Your task to perform on an android device: Open Chrome and go to settings Image 0: 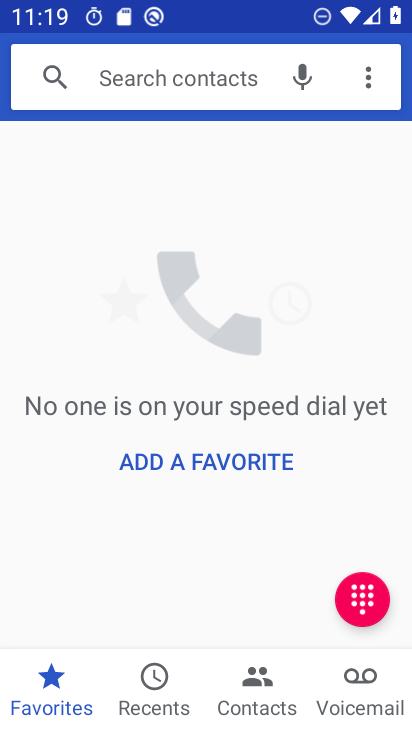
Step 0: press back button
Your task to perform on an android device: Open Chrome and go to settings Image 1: 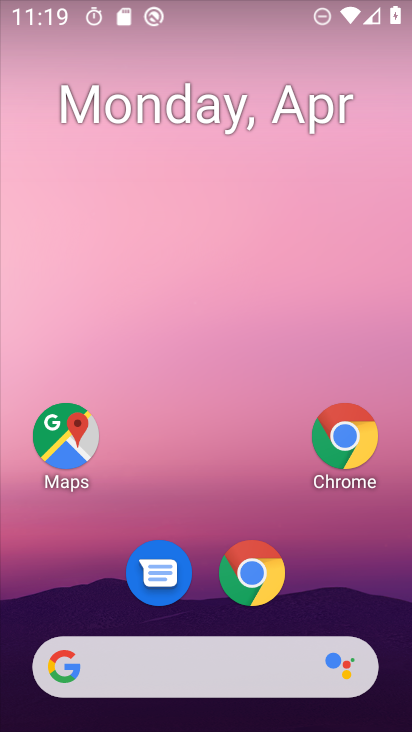
Step 1: click (349, 440)
Your task to perform on an android device: Open Chrome and go to settings Image 2: 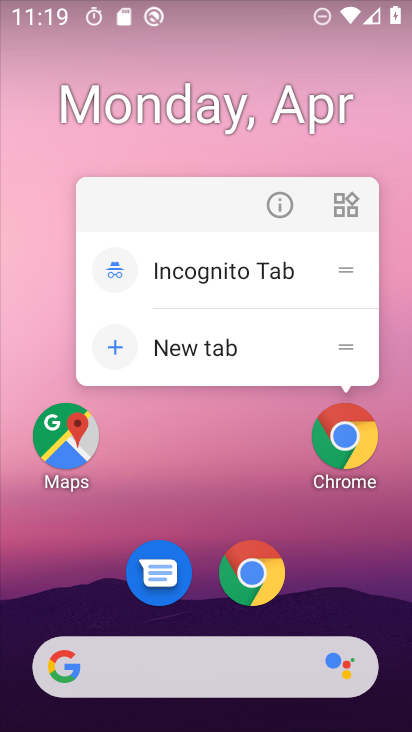
Step 2: click (349, 440)
Your task to perform on an android device: Open Chrome and go to settings Image 3: 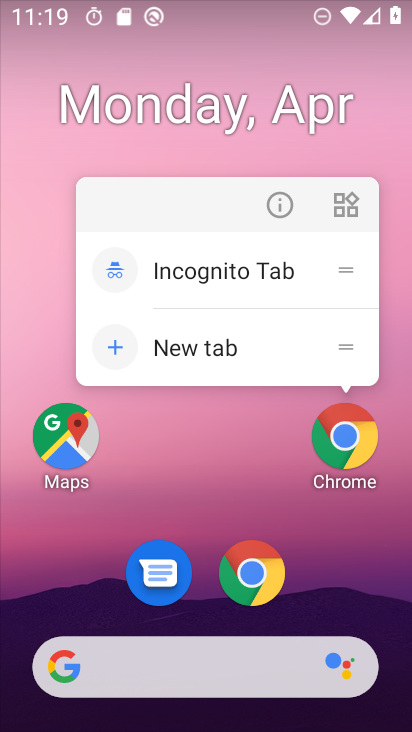
Step 3: click (349, 440)
Your task to perform on an android device: Open Chrome and go to settings Image 4: 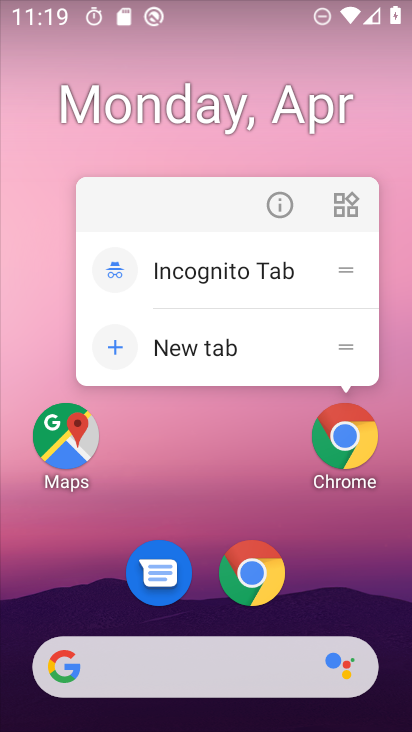
Step 4: click (349, 439)
Your task to perform on an android device: Open Chrome and go to settings Image 5: 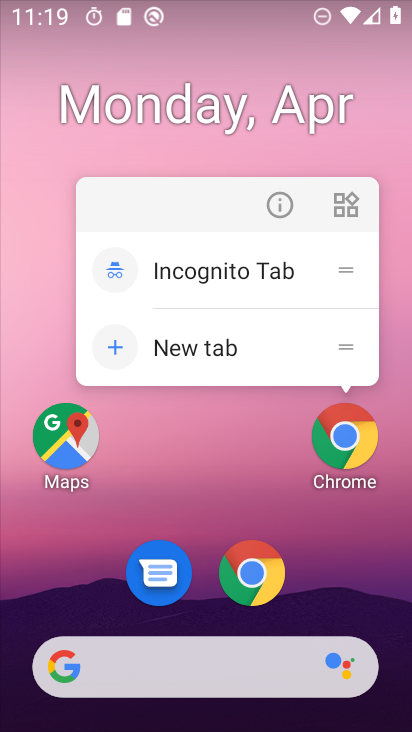
Step 5: click (349, 439)
Your task to perform on an android device: Open Chrome and go to settings Image 6: 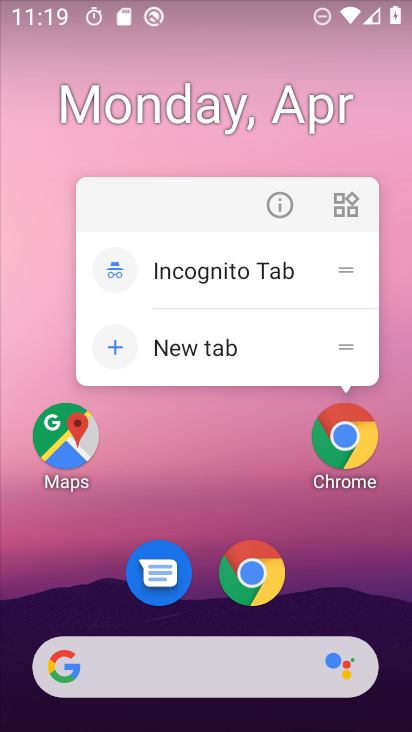
Step 6: click (349, 439)
Your task to perform on an android device: Open Chrome and go to settings Image 7: 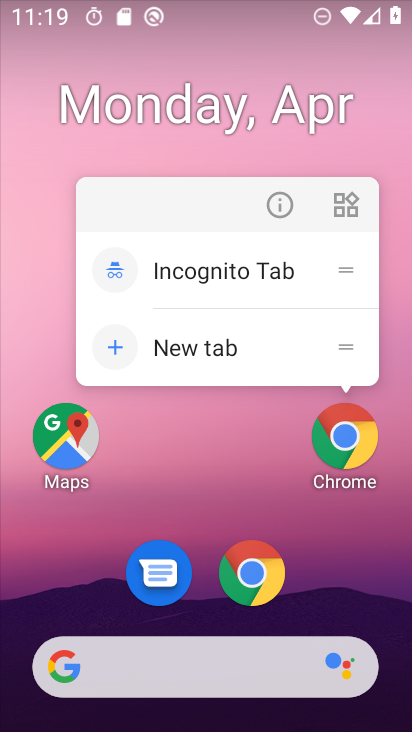
Step 7: click (349, 439)
Your task to perform on an android device: Open Chrome and go to settings Image 8: 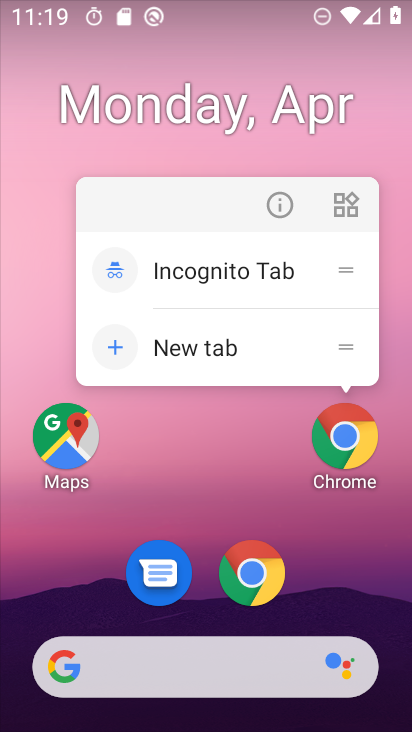
Step 8: click (350, 437)
Your task to perform on an android device: Open Chrome and go to settings Image 9: 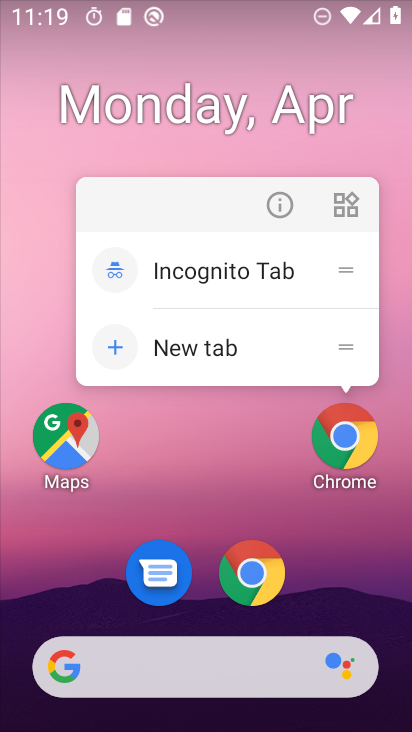
Step 9: click (350, 438)
Your task to perform on an android device: Open Chrome and go to settings Image 10: 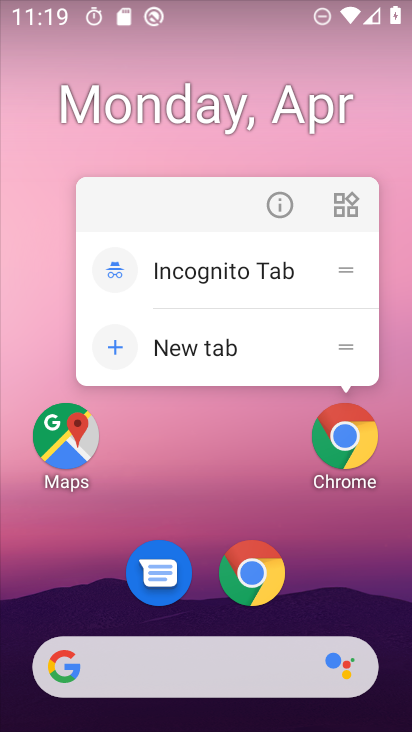
Step 10: click (350, 438)
Your task to perform on an android device: Open Chrome and go to settings Image 11: 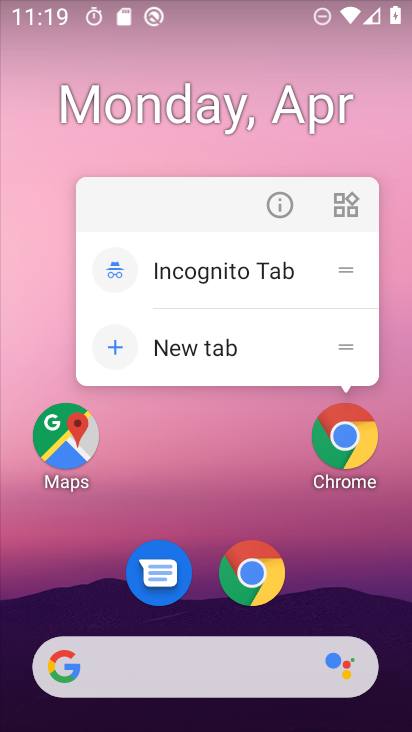
Step 11: click (350, 437)
Your task to perform on an android device: Open Chrome and go to settings Image 12: 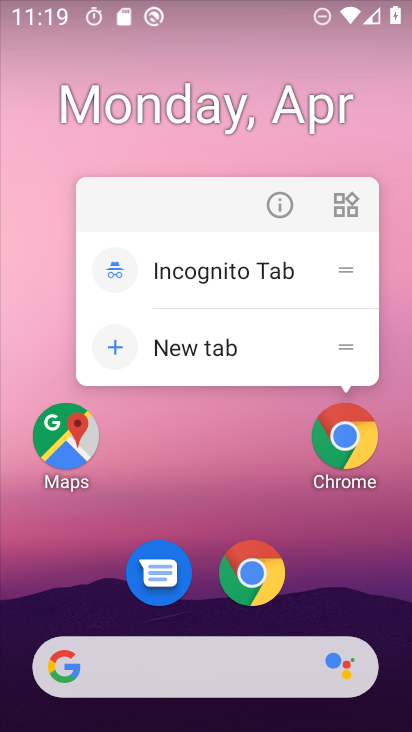
Step 12: click (350, 438)
Your task to perform on an android device: Open Chrome and go to settings Image 13: 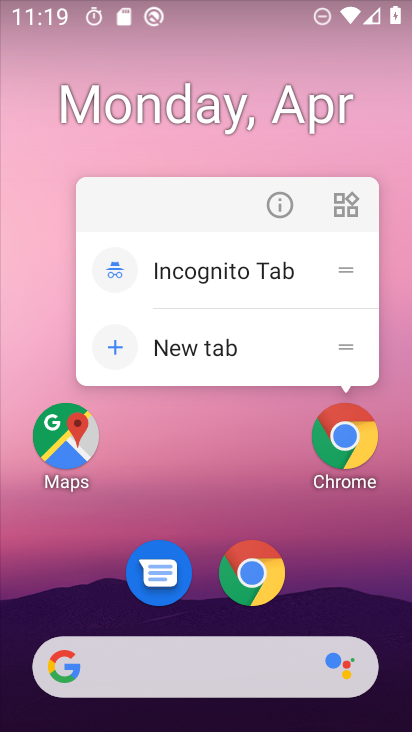
Step 13: click (350, 438)
Your task to perform on an android device: Open Chrome and go to settings Image 14: 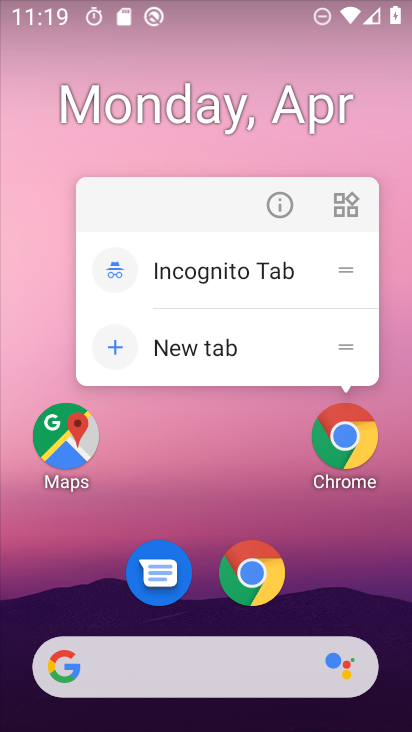
Step 14: click (350, 438)
Your task to perform on an android device: Open Chrome and go to settings Image 15: 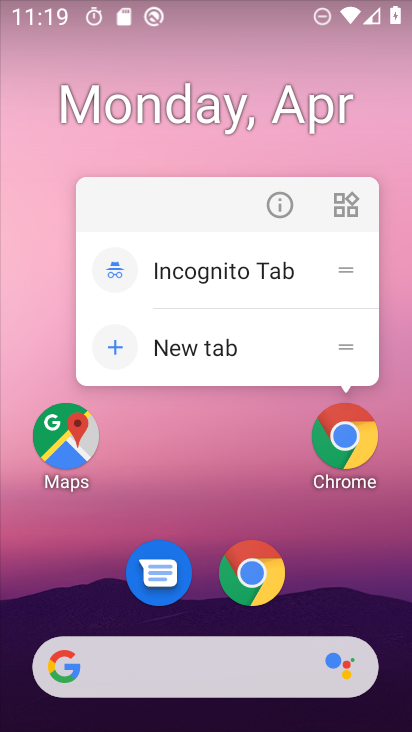
Step 15: click (350, 437)
Your task to perform on an android device: Open Chrome and go to settings Image 16: 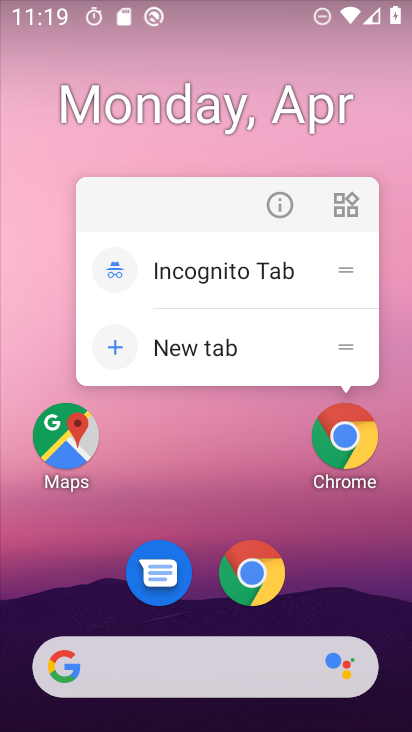
Step 16: click (350, 437)
Your task to perform on an android device: Open Chrome and go to settings Image 17: 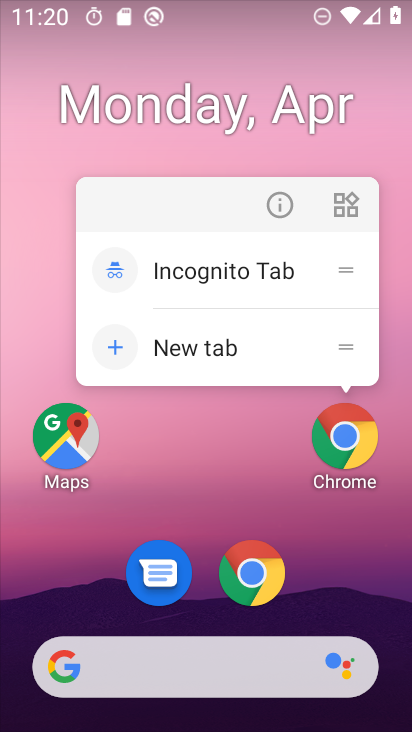
Step 17: click (350, 436)
Your task to perform on an android device: Open Chrome and go to settings Image 18: 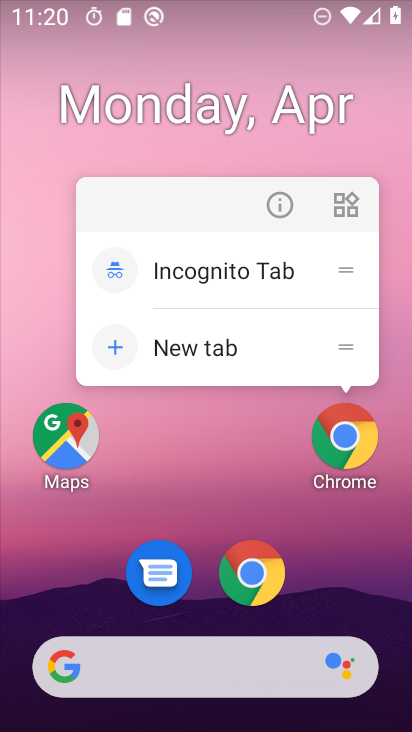
Step 18: click (350, 436)
Your task to perform on an android device: Open Chrome and go to settings Image 19: 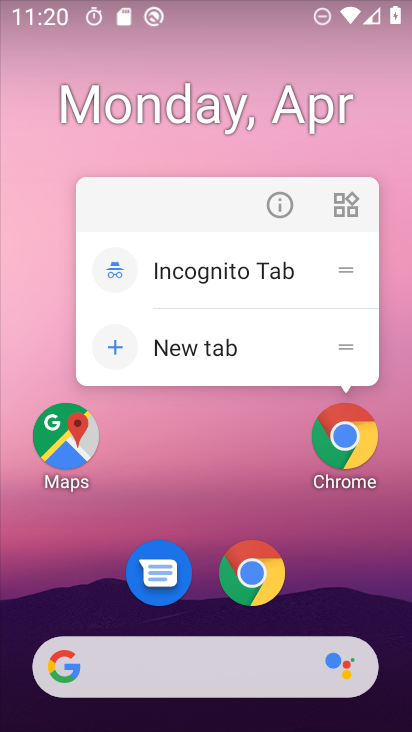
Step 19: click (350, 437)
Your task to perform on an android device: Open Chrome and go to settings Image 20: 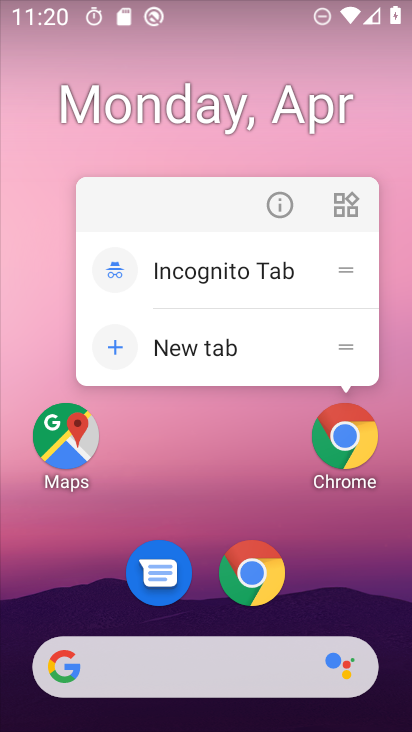
Step 20: click (350, 436)
Your task to perform on an android device: Open Chrome and go to settings Image 21: 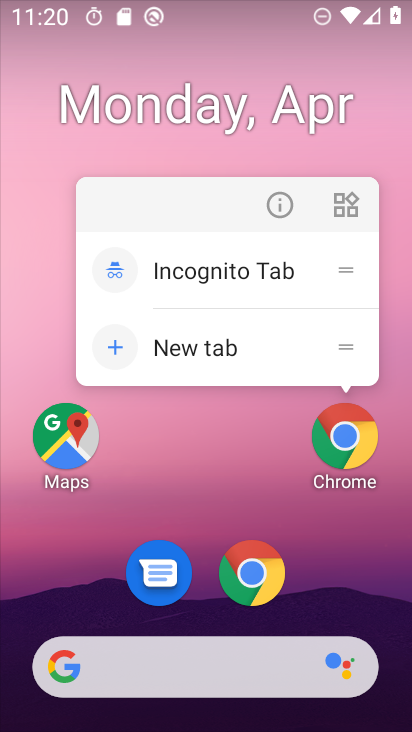
Step 21: click (350, 436)
Your task to perform on an android device: Open Chrome and go to settings Image 22: 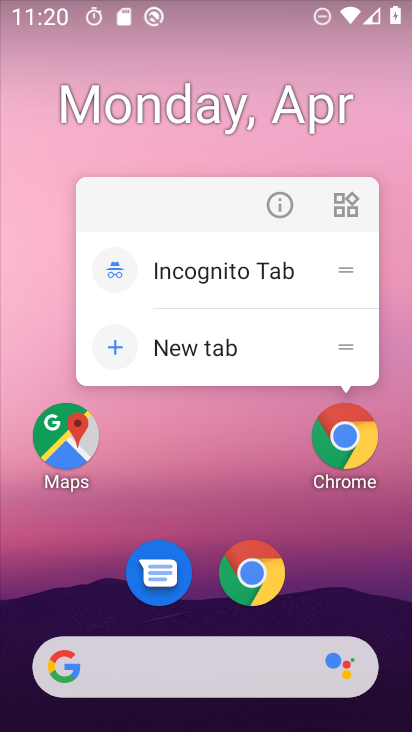
Step 22: drag from (264, 454) to (207, 92)
Your task to perform on an android device: Open Chrome and go to settings Image 23: 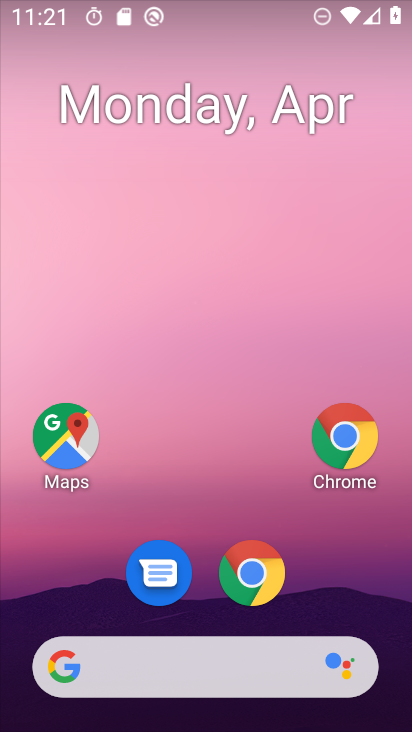
Step 23: click (373, 440)
Your task to perform on an android device: Open Chrome and go to settings Image 24: 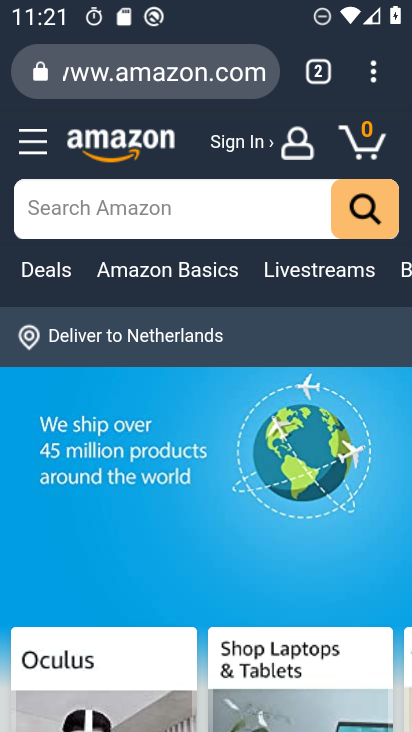
Step 24: task complete